Your task to perform on an android device: toggle wifi Image 0: 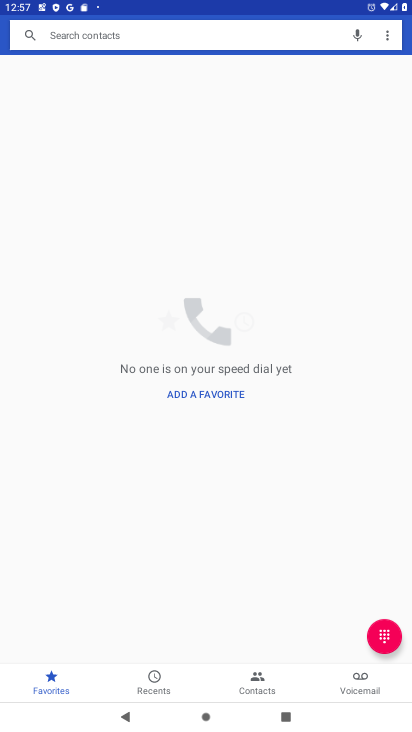
Step 0: drag from (173, 15) to (185, 575)
Your task to perform on an android device: toggle wifi Image 1: 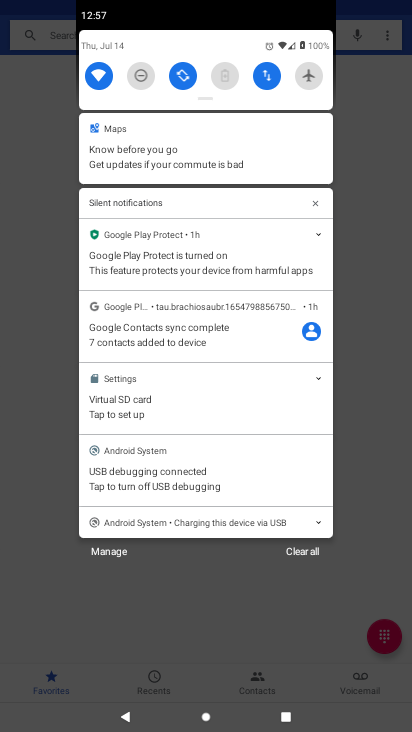
Step 1: click (102, 87)
Your task to perform on an android device: toggle wifi Image 2: 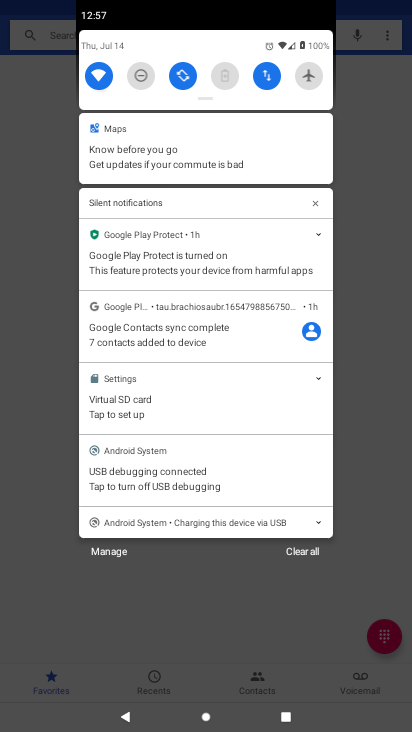
Step 2: click (102, 87)
Your task to perform on an android device: toggle wifi Image 3: 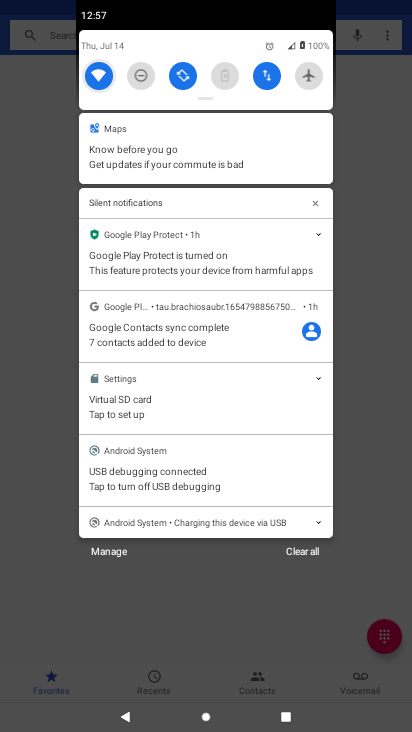
Step 3: click (102, 87)
Your task to perform on an android device: toggle wifi Image 4: 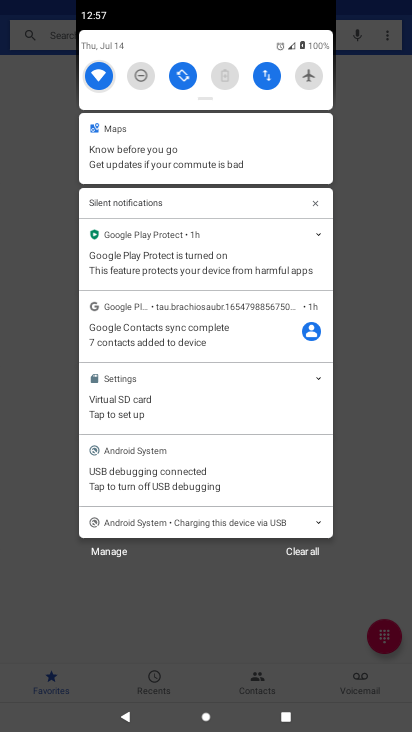
Step 4: click (102, 87)
Your task to perform on an android device: toggle wifi Image 5: 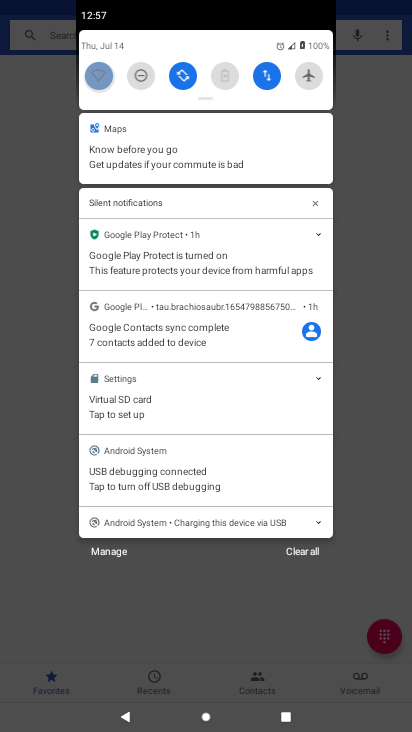
Step 5: click (102, 87)
Your task to perform on an android device: toggle wifi Image 6: 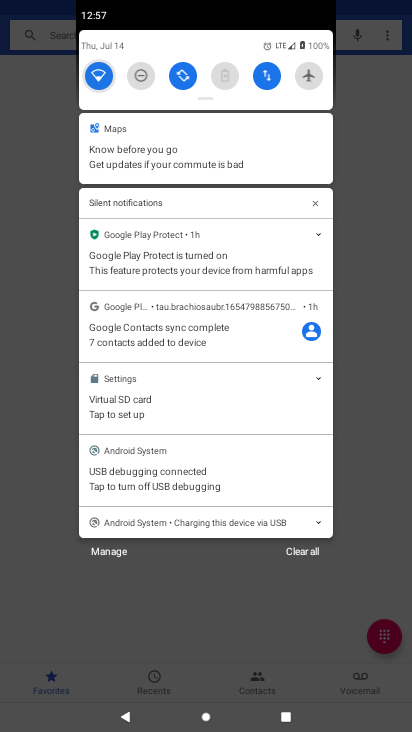
Step 6: click (102, 87)
Your task to perform on an android device: toggle wifi Image 7: 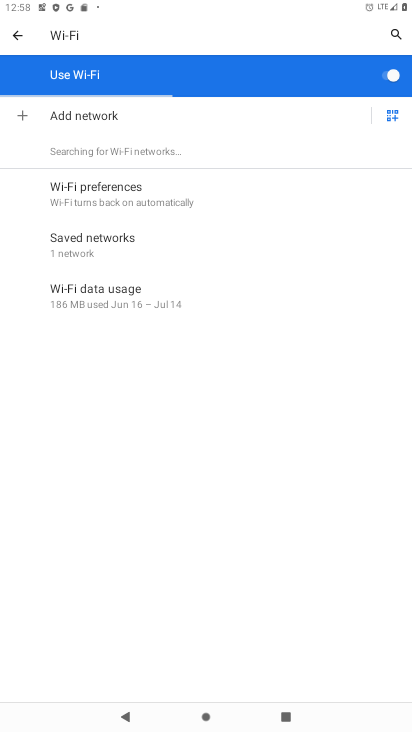
Step 7: task complete